Your task to perform on an android device: Go to Reddit.com Image 0: 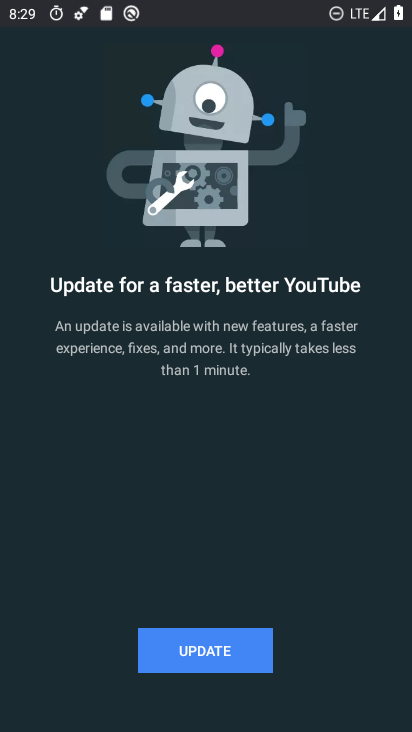
Step 0: press back button
Your task to perform on an android device: Go to Reddit.com Image 1: 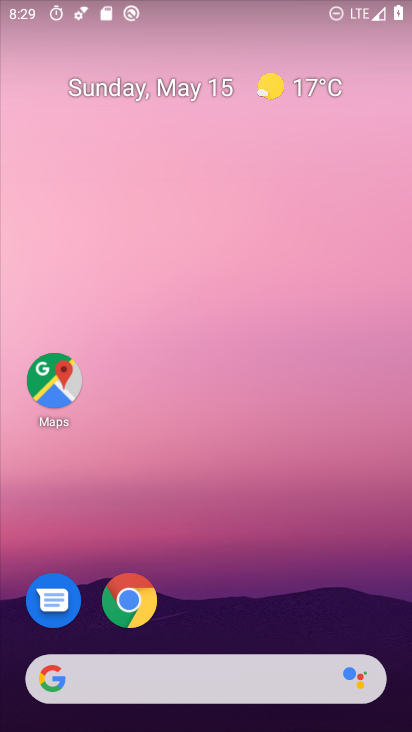
Step 1: click (129, 600)
Your task to perform on an android device: Go to Reddit.com Image 2: 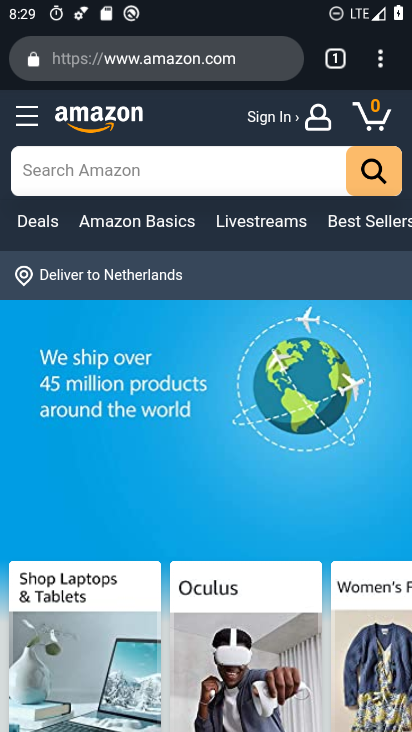
Step 2: click (262, 75)
Your task to perform on an android device: Go to Reddit.com Image 3: 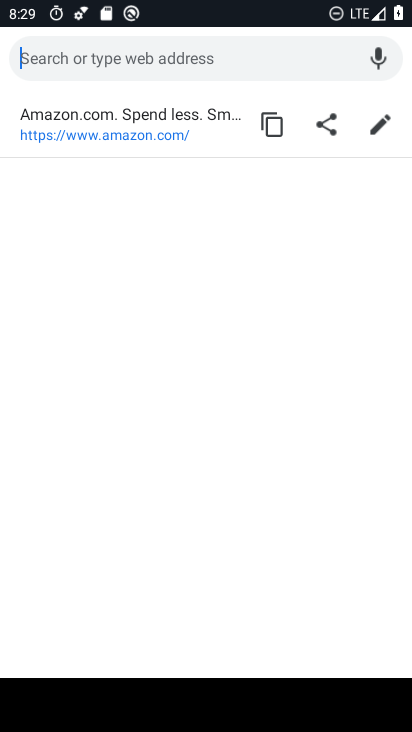
Step 3: type "Reddit.com"
Your task to perform on an android device: Go to Reddit.com Image 4: 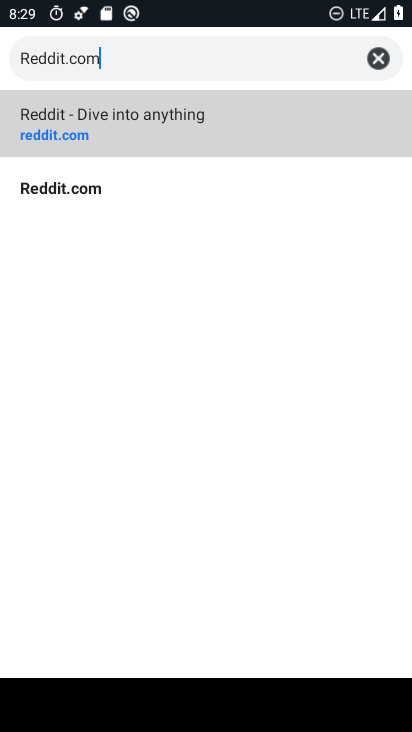
Step 4: type ""
Your task to perform on an android device: Go to Reddit.com Image 5: 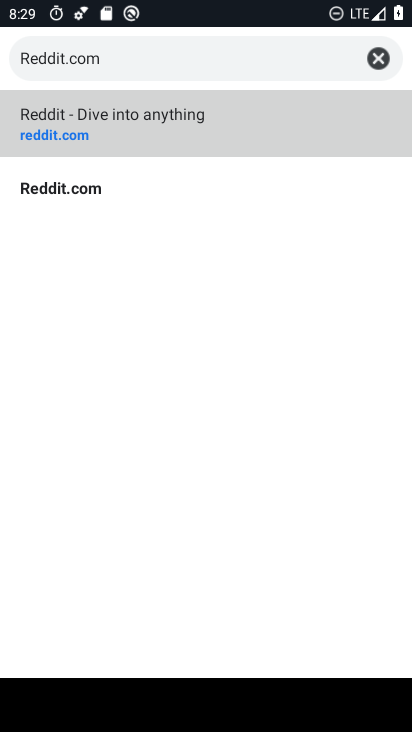
Step 5: click (78, 182)
Your task to perform on an android device: Go to Reddit.com Image 6: 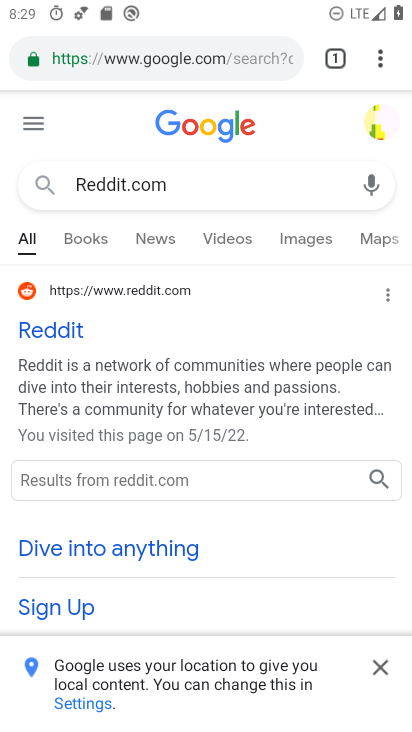
Step 6: click (56, 335)
Your task to perform on an android device: Go to Reddit.com Image 7: 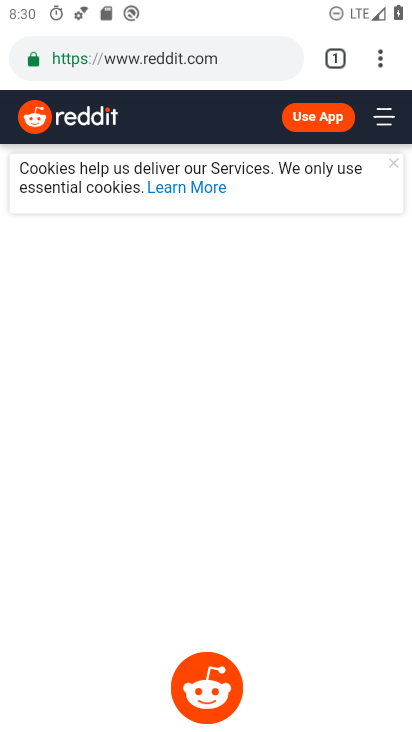
Step 7: task complete